Your task to perform on an android device: Add "panasonic triple a" to the cart on bestbuy, then select checkout. Image 0: 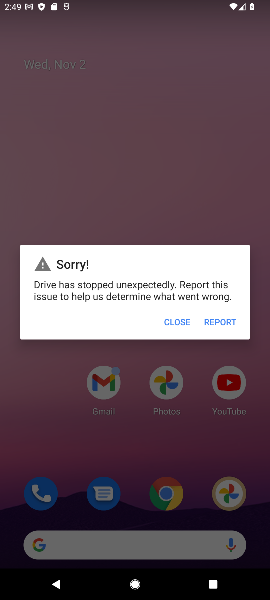
Step 0: click (168, 495)
Your task to perform on an android device: Add "panasonic triple a" to the cart on bestbuy, then select checkout. Image 1: 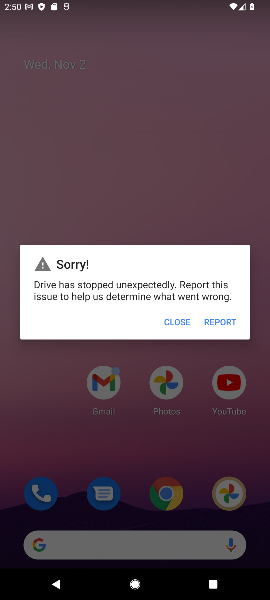
Step 1: press home button
Your task to perform on an android device: Add "panasonic triple a" to the cart on bestbuy, then select checkout. Image 2: 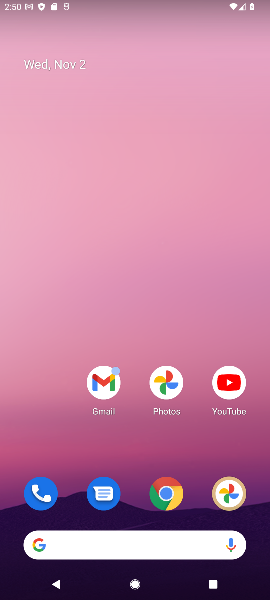
Step 2: click (163, 503)
Your task to perform on an android device: Add "panasonic triple a" to the cart on bestbuy, then select checkout. Image 3: 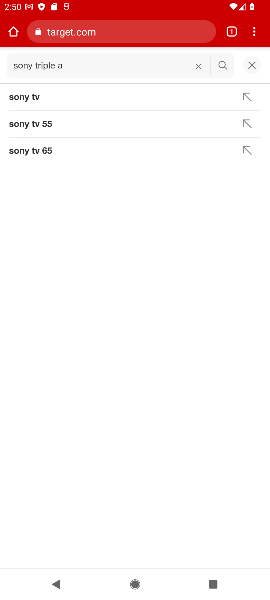
Step 3: click (174, 28)
Your task to perform on an android device: Add "panasonic triple a" to the cart on bestbuy, then select checkout. Image 4: 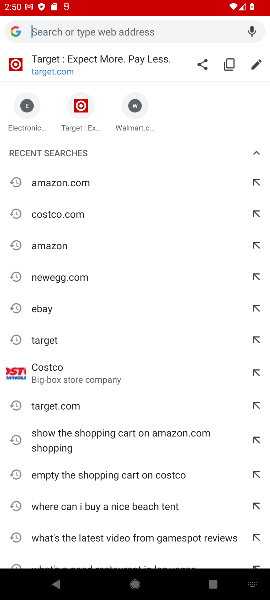
Step 4: type "bestbuy"
Your task to perform on an android device: Add "panasonic triple a" to the cart on bestbuy, then select checkout. Image 5: 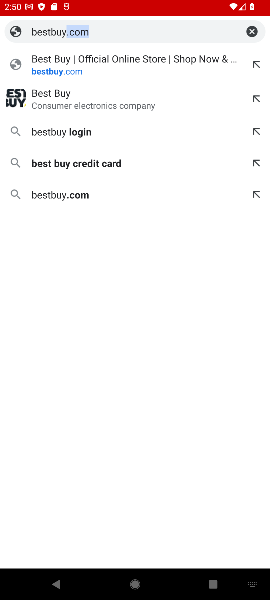
Step 5: click (128, 34)
Your task to perform on an android device: Add "panasonic triple a" to the cart on bestbuy, then select checkout. Image 6: 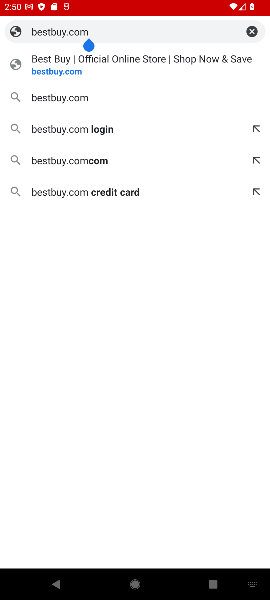
Step 6: click (78, 98)
Your task to perform on an android device: Add "panasonic triple a" to the cart on bestbuy, then select checkout. Image 7: 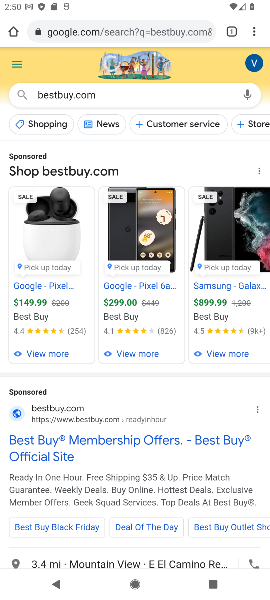
Step 7: click (59, 406)
Your task to perform on an android device: Add "panasonic triple a" to the cart on bestbuy, then select checkout. Image 8: 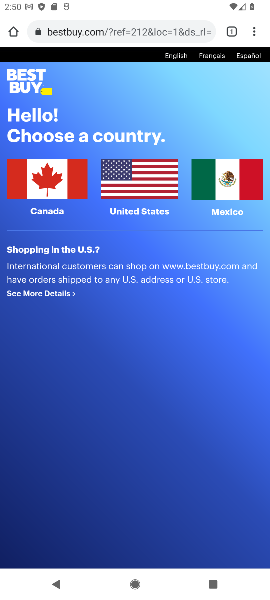
Step 8: click (137, 176)
Your task to perform on an android device: Add "panasonic triple a" to the cart on bestbuy, then select checkout. Image 9: 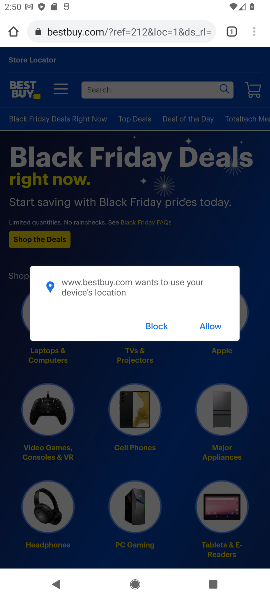
Step 9: click (148, 323)
Your task to perform on an android device: Add "panasonic triple a" to the cart on bestbuy, then select checkout. Image 10: 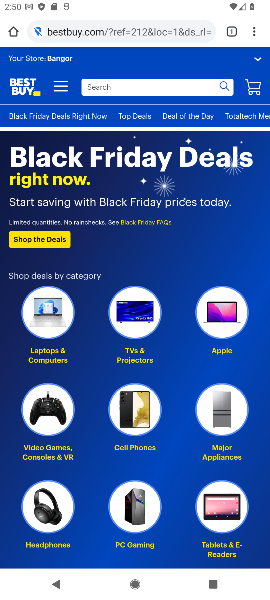
Step 10: click (138, 87)
Your task to perform on an android device: Add "panasonic triple a" to the cart on bestbuy, then select checkout. Image 11: 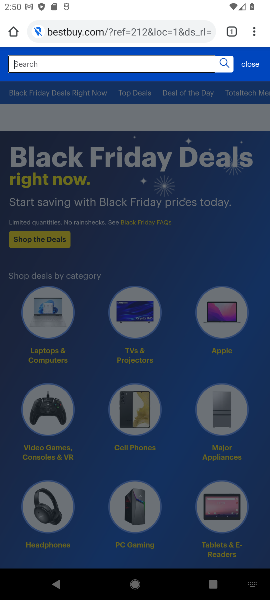
Step 11: type "panasonic triple a"
Your task to perform on an android device: Add "panasonic triple a" to the cart on bestbuy, then select checkout. Image 12: 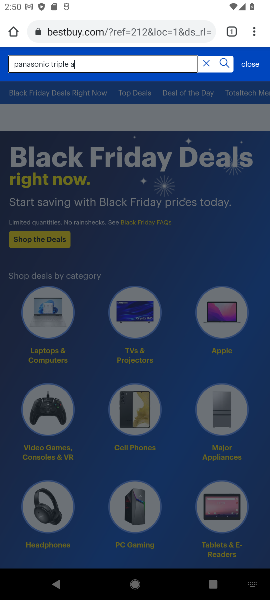
Step 12: click (157, 58)
Your task to perform on an android device: Add "panasonic triple a" to the cart on bestbuy, then select checkout. Image 13: 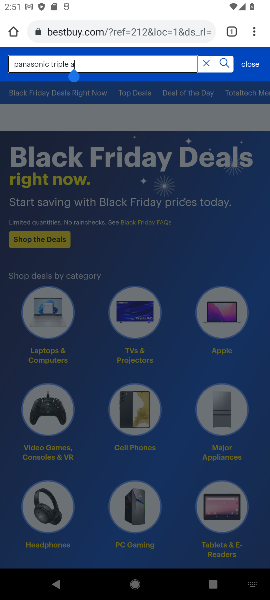
Step 13: click (160, 65)
Your task to perform on an android device: Add "panasonic triple a" to the cart on bestbuy, then select checkout. Image 14: 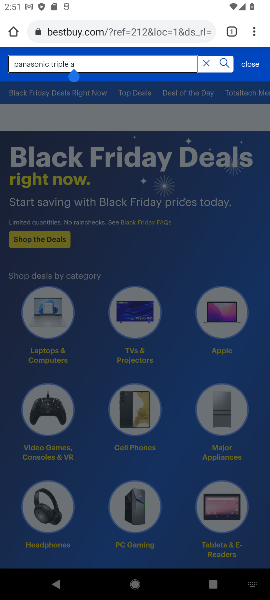
Step 14: click (237, 221)
Your task to perform on an android device: Add "panasonic triple a" to the cart on bestbuy, then select checkout. Image 15: 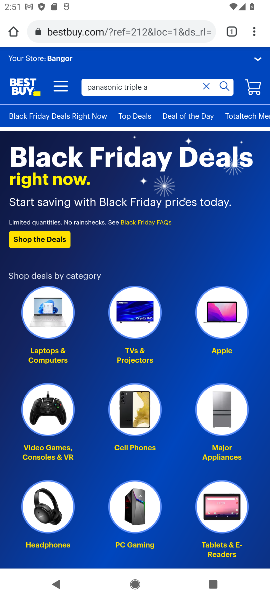
Step 15: click (169, 84)
Your task to perform on an android device: Add "panasonic triple a" to the cart on bestbuy, then select checkout. Image 16: 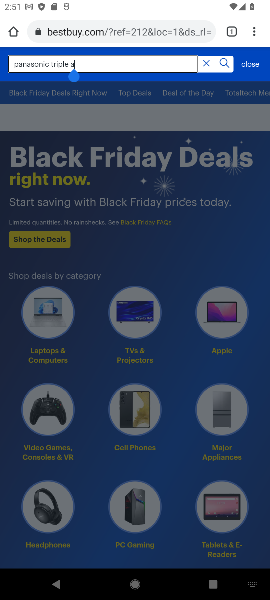
Step 16: click (205, 65)
Your task to perform on an android device: Add "panasonic triple a" to the cart on bestbuy, then select checkout. Image 17: 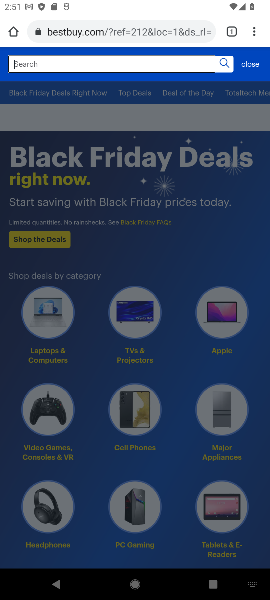
Step 17: type "panasonic triple "
Your task to perform on an android device: Add "panasonic triple a" to the cart on bestbuy, then select checkout. Image 18: 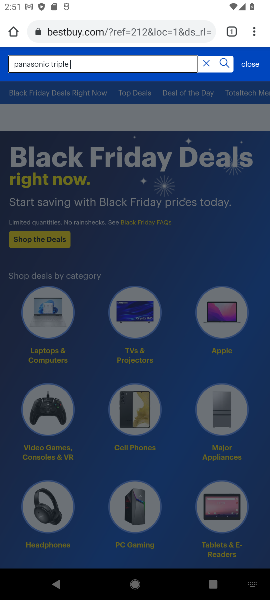
Step 18: task complete